Your task to perform on an android device: toggle show notifications on the lock screen Image 0: 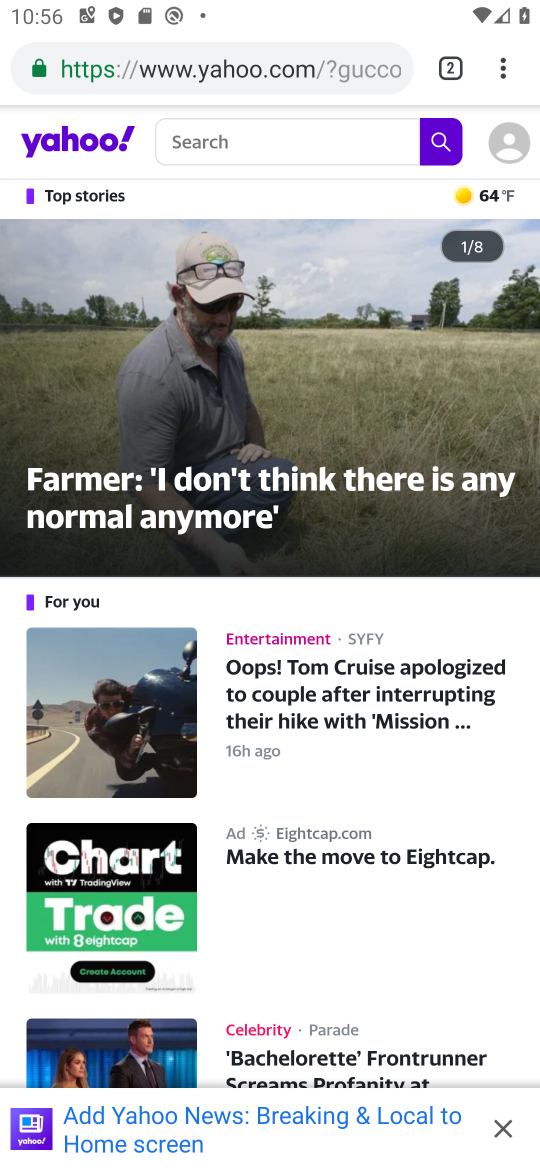
Step 0: press home button
Your task to perform on an android device: toggle show notifications on the lock screen Image 1: 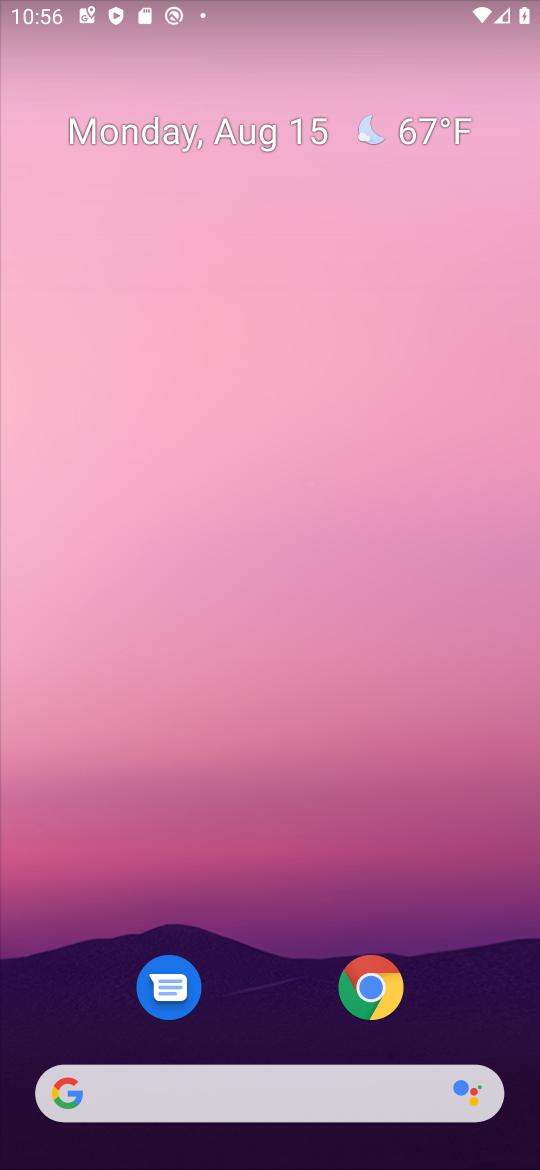
Step 1: drag from (265, 1061) to (169, 46)
Your task to perform on an android device: toggle show notifications on the lock screen Image 2: 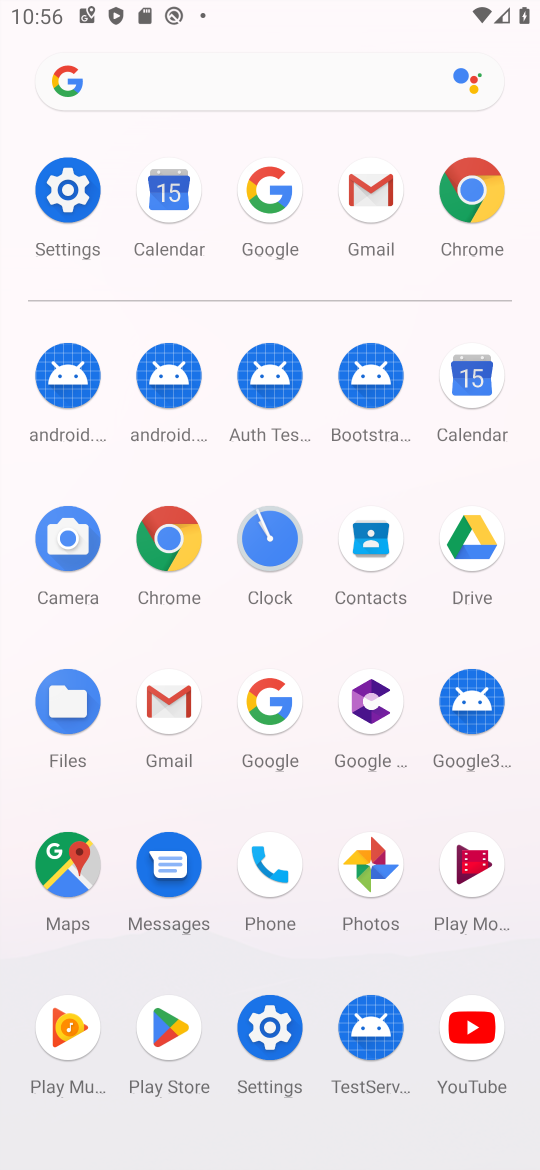
Step 2: click (255, 1039)
Your task to perform on an android device: toggle show notifications on the lock screen Image 3: 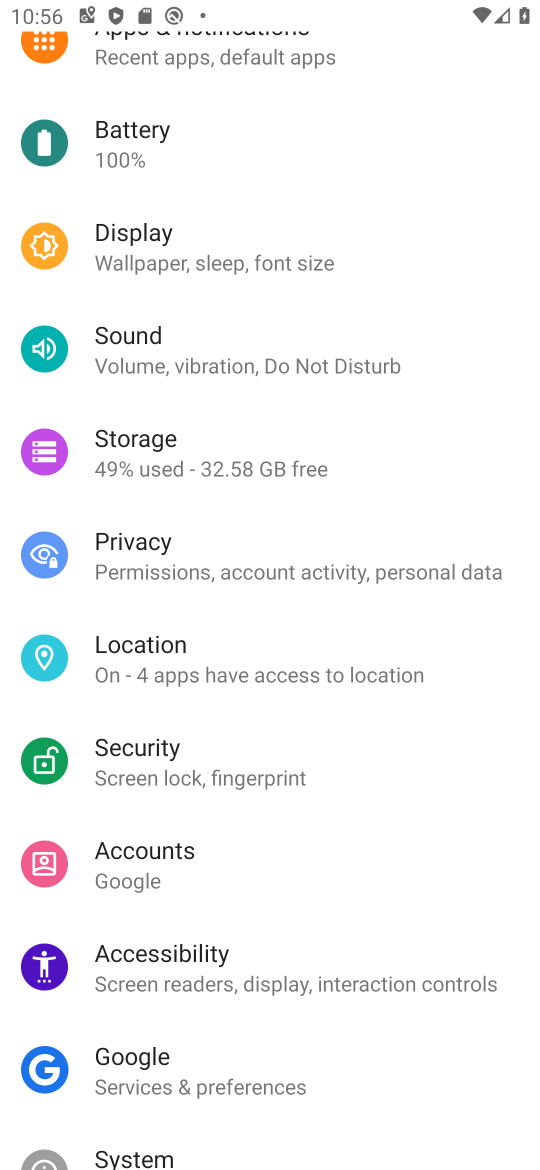
Step 3: drag from (92, 198) to (52, 804)
Your task to perform on an android device: toggle show notifications on the lock screen Image 4: 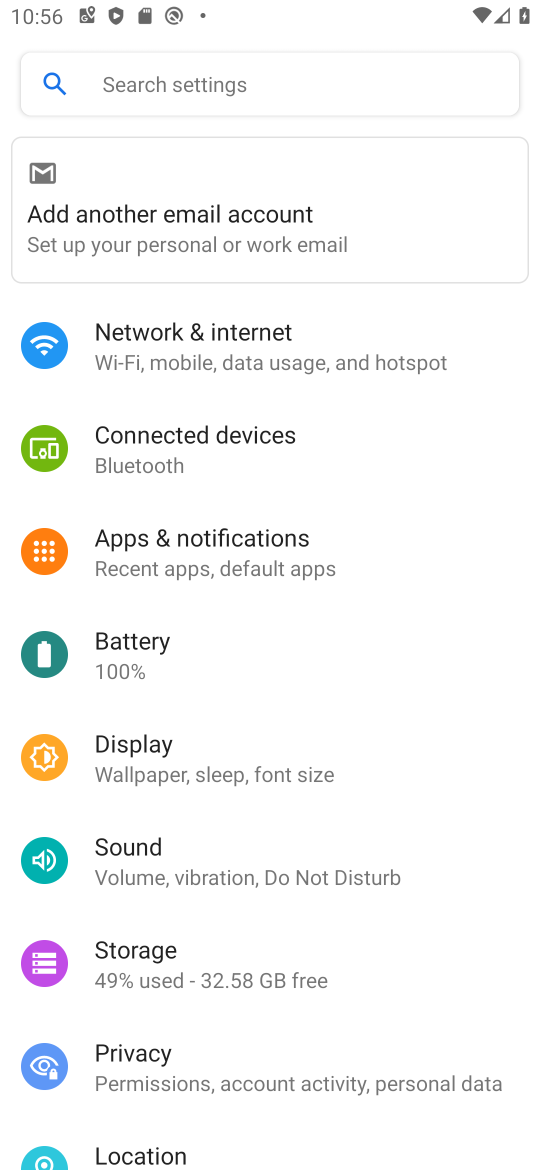
Step 4: click (223, 542)
Your task to perform on an android device: toggle show notifications on the lock screen Image 5: 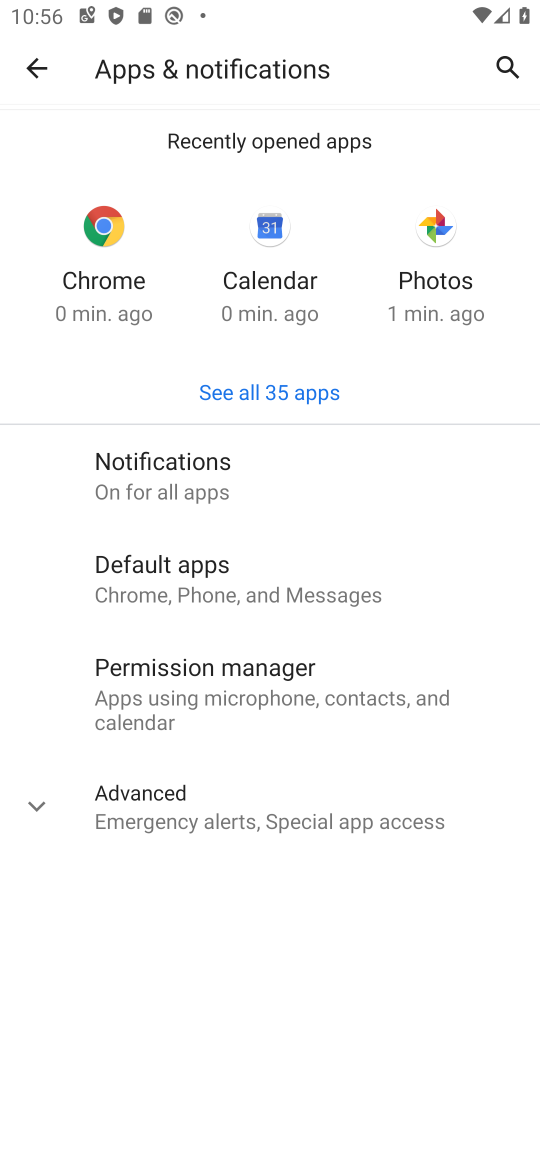
Step 5: click (152, 803)
Your task to perform on an android device: toggle show notifications on the lock screen Image 6: 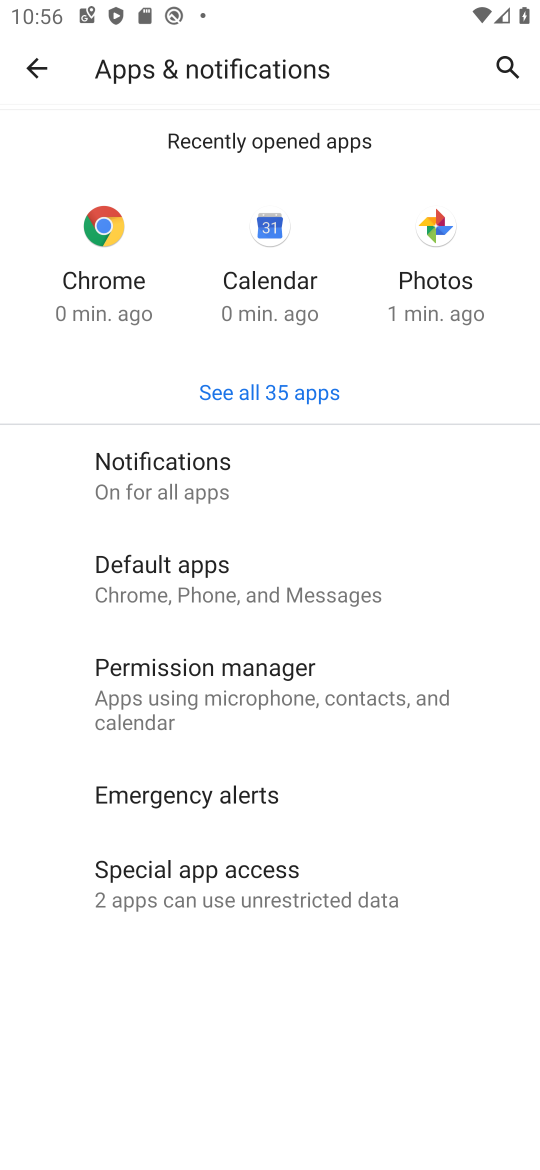
Step 6: click (167, 448)
Your task to perform on an android device: toggle show notifications on the lock screen Image 7: 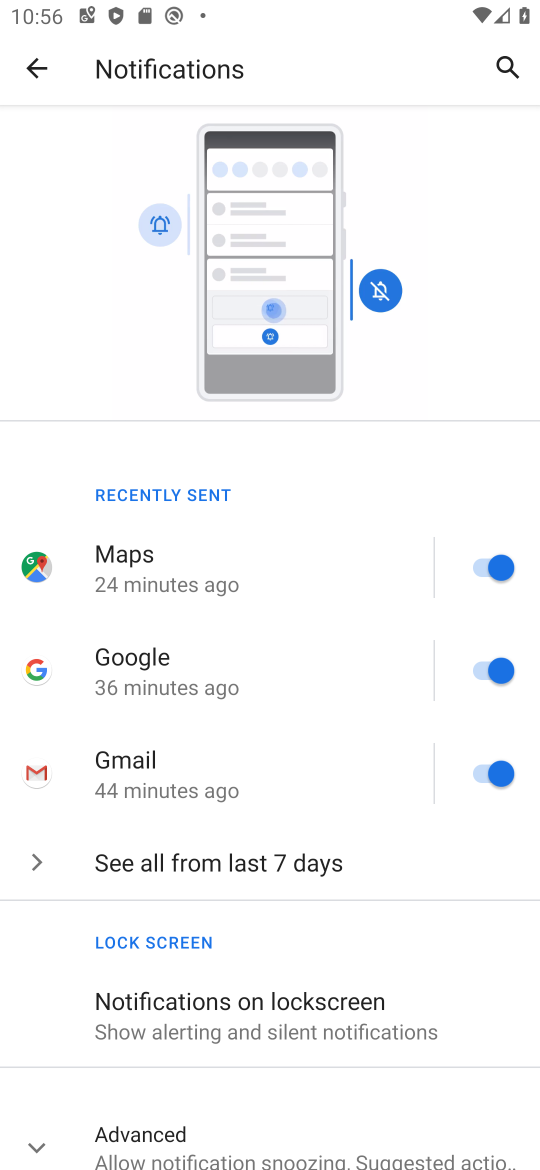
Step 7: click (306, 1038)
Your task to perform on an android device: toggle show notifications on the lock screen Image 8: 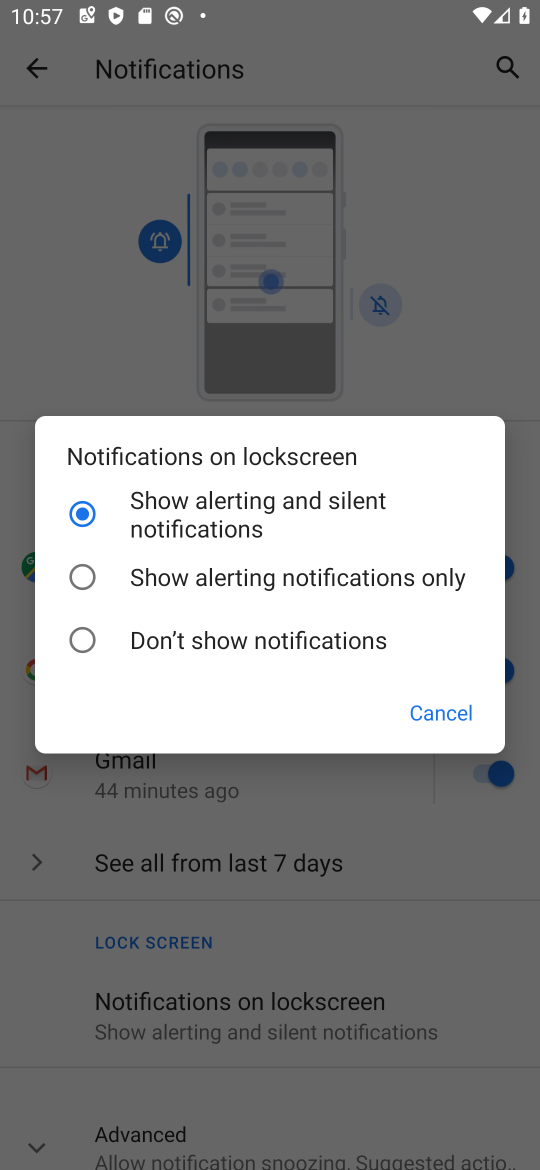
Step 8: click (80, 576)
Your task to perform on an android device: toggle show notifications on the lock screen Image 9: 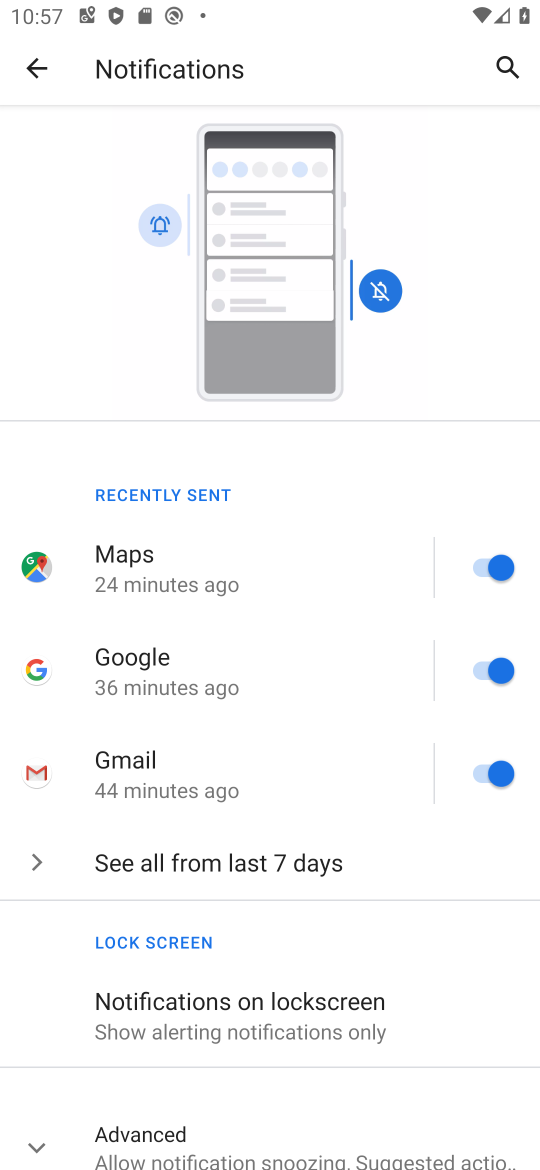
Step 9: task complete